Your task to perform on an android device: Open location settings Image 0: 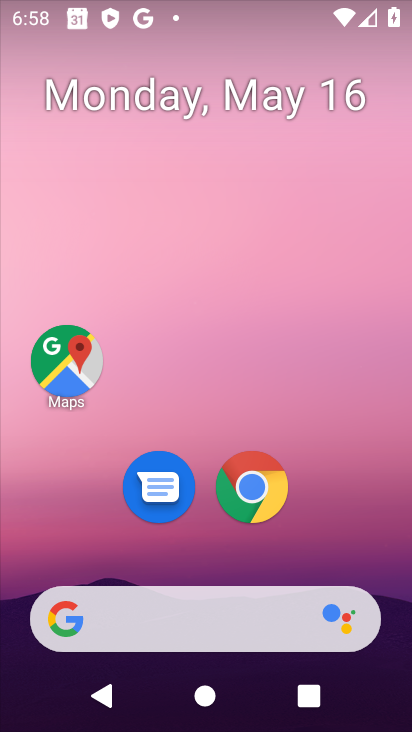
Step 0: drag from (383, 537) to (268, 59)
Your task to perform on an android device: Open location settings Image 1: 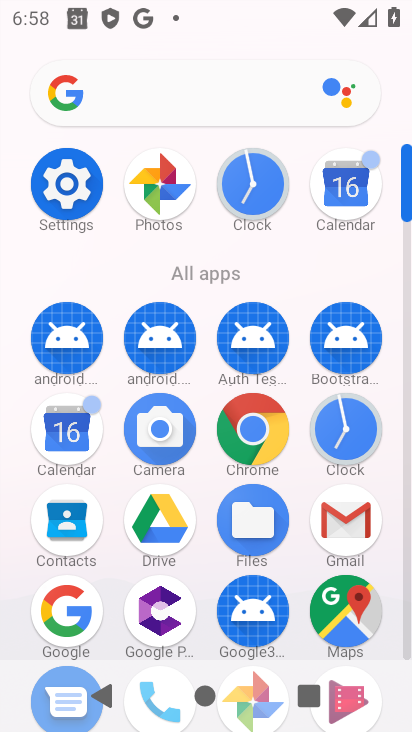
Step 1: drag from (266, 267) to (245, 38)
Your task to perform on an android device: Open location settings Image 2: 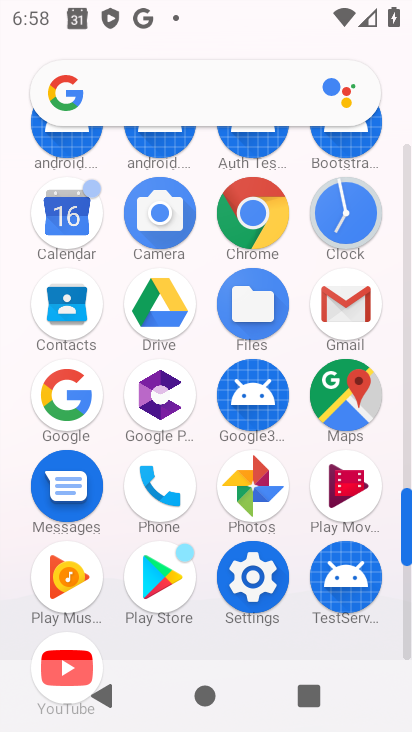
Step 2: click (252, 588)
Your task to perform on an android device: Open location settings Image 3: 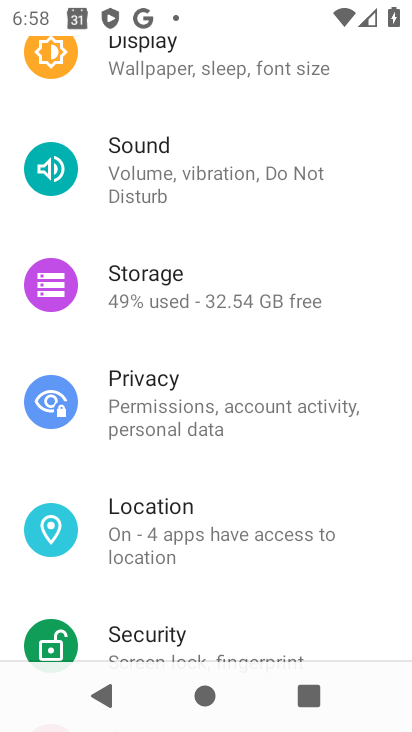
Step 3: click (168, 542)
Your task to perform on an android device: Open location settings Image 4: 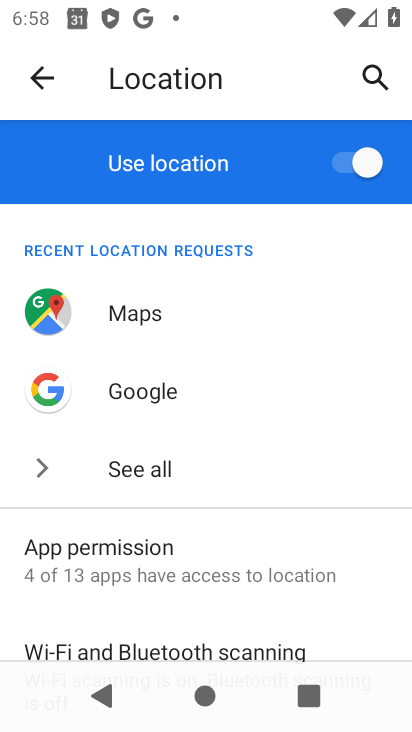
Step 4: task complete